Your task to perform on an android device: delete the emails in spam in the gmail app Image 0: 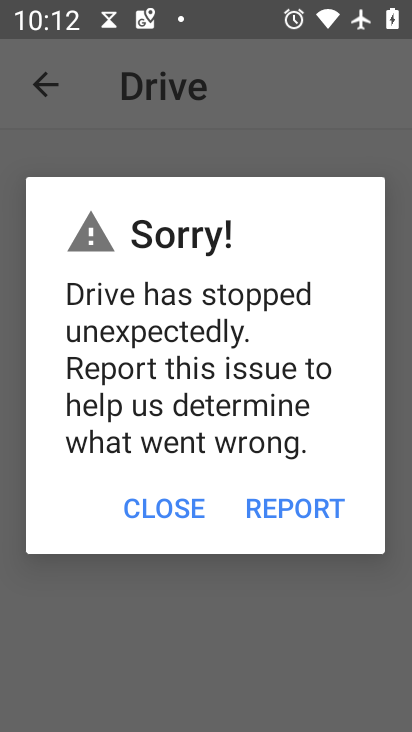
Step 0: press home button
Your task to perform on an android device: delete the emails in spam in the gmail app Image 1: 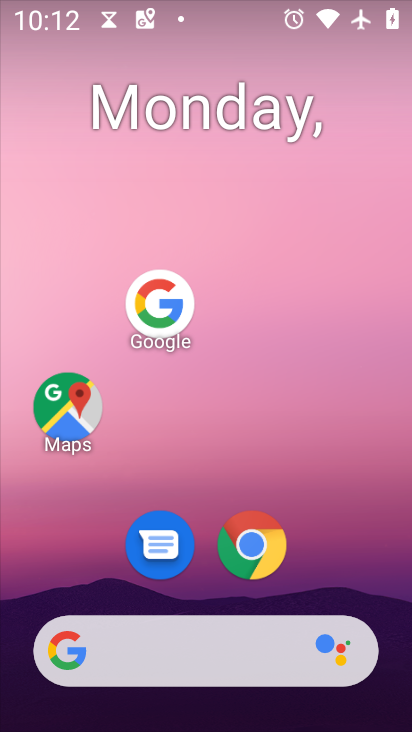
Step 1: drag from (160, 655) to (254, 127)
Your task to perform on an android device: delete the emails in spam in the gmail app Image 2: 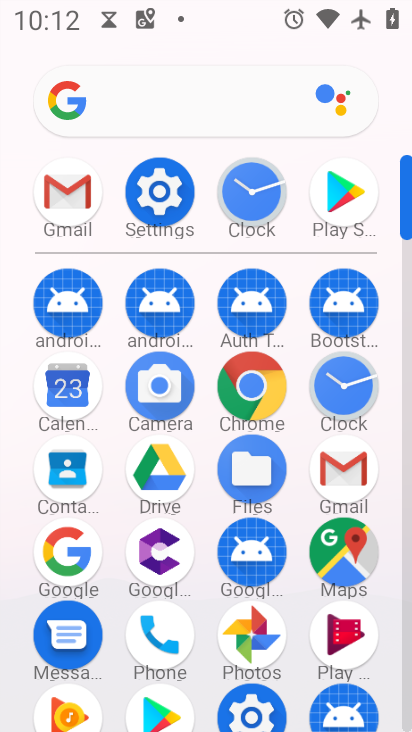
Step 2: click (72, 210)
Your task to perform on an android device: delete the emails in spam in the gmail app Image 3: 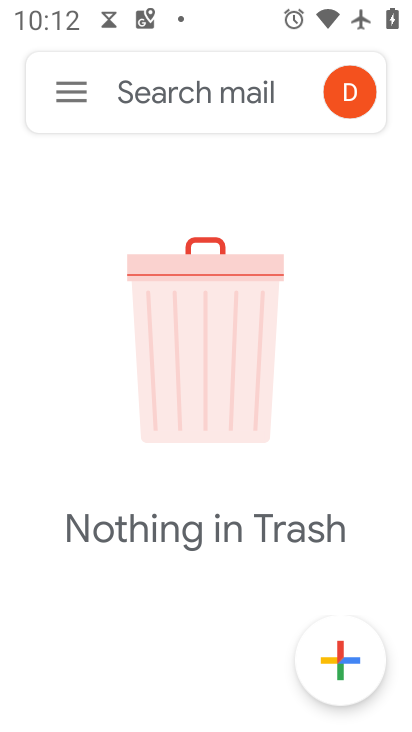
Step 3: click (95, 89)
Your task to perform on an android device: delete the emails in spam in the gmail app Image 4: 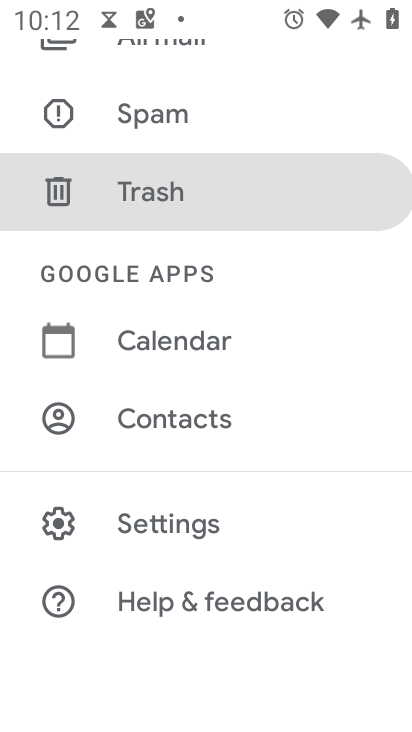
Step 4: click (136, 125)
Your task to perform on an android device: delete the emails in spam in the gmail app Image 5: 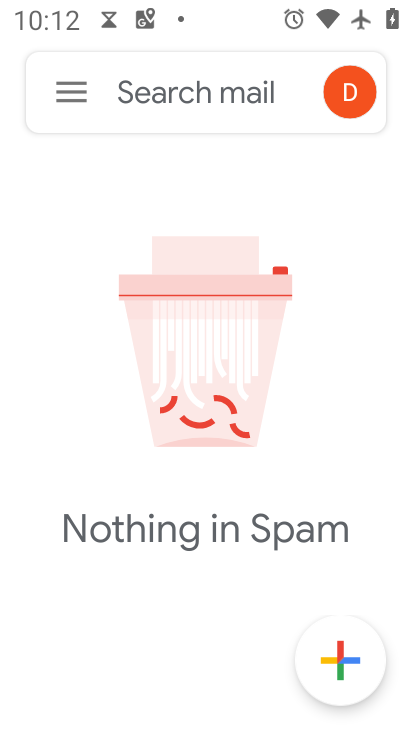
Step 5: task complete